Your task to perform on an android device: turn smart compose on in the gmail app Image 0: 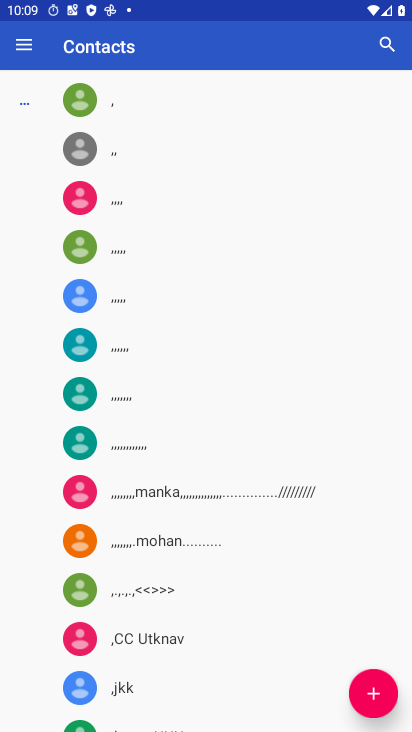
Step 0: press home button
Your task to perform on an android device: turn smart compose on in the gmail app Image 1: 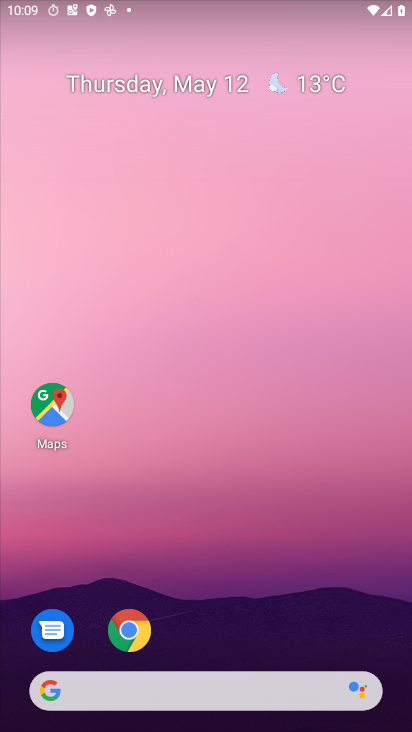
Step 1: drag from (208, 693) to (264, 311)
Your task to perform on an android device: turn smart compose on in the gmail app Image 2: 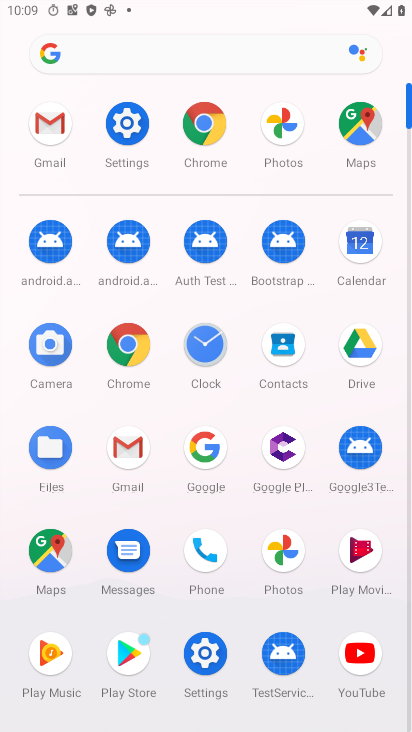
Step 2: click (135, 461)
Your task to perform on an android device: turn smart compose on in the gmail app Image 3: 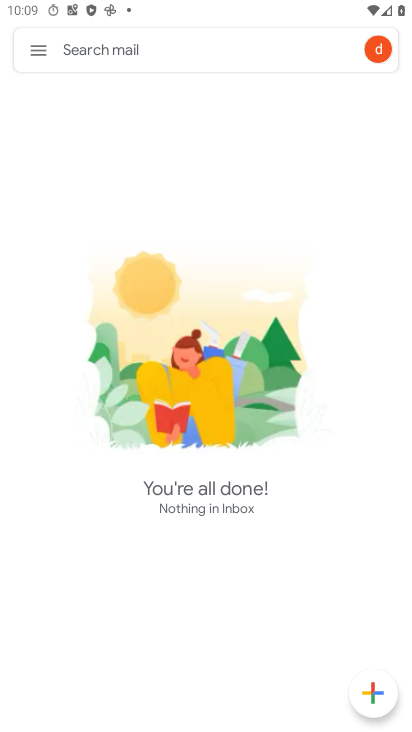
Step 3: click (30, 56)
Your task to perform on an android device: turn smart compose on in the gmail app Image 4: 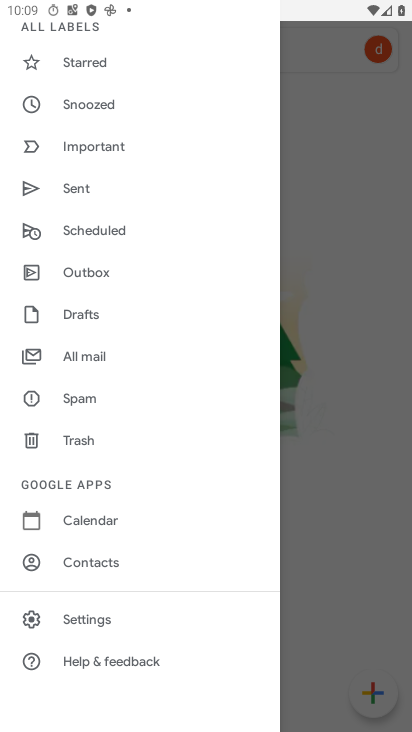
Step 4: click (84, 610)
Your task to perform on an android device: turn smart compose on in the gmail app Image 5: 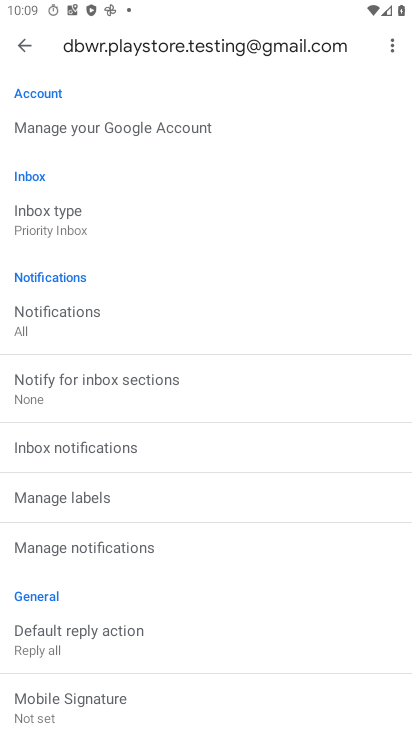
Step 5: task complete